Your task to perform on an android device: Open Wikipedia Image 0: 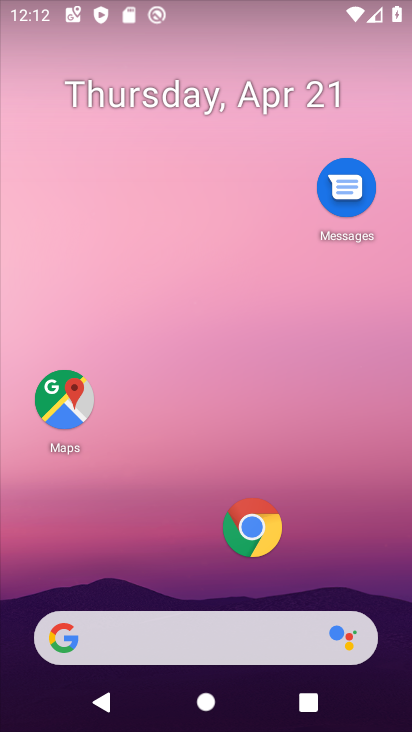
Step 0: click (262, 525)
Your task to perform on an android device: Open Wikipedia Image 1: 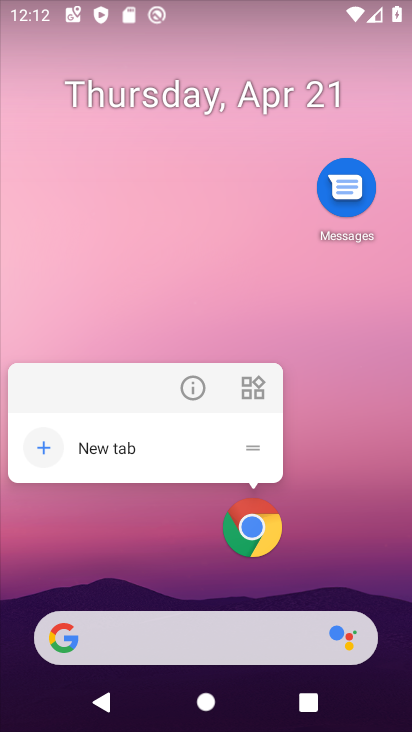
Step 1: click (271, 516)
Your task to perform on an android device: Open Wikipedia Image 2: 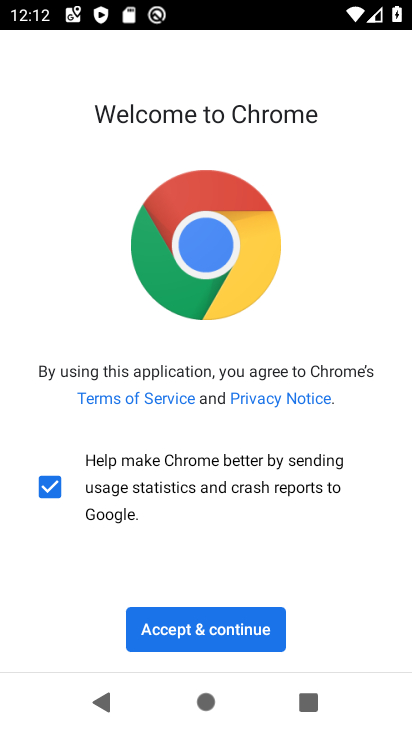
Step 2: click (249, 635)
Your task to perform on an android device: Open Wikipedia Image 3: 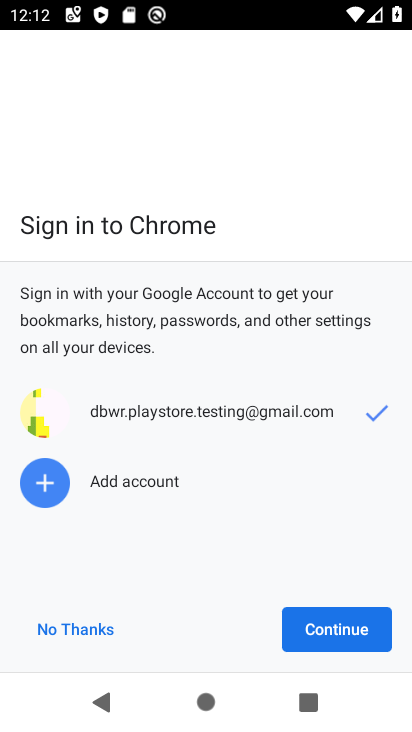
Step 3: click (283, 641)
Your task to perform on an android device: Open Wikipedia Image 4: 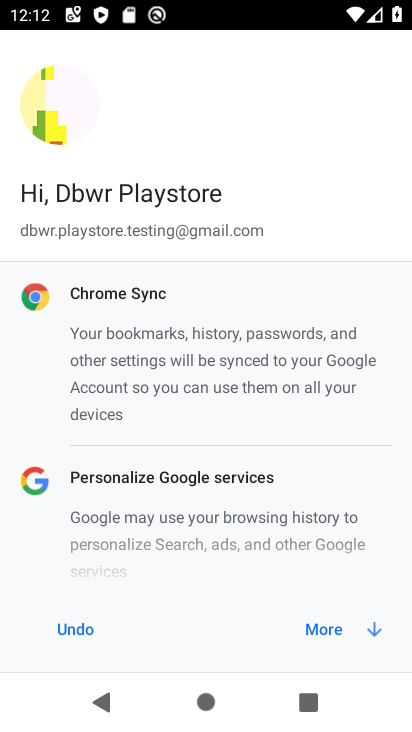
Step 4: click (308, 627)
Your task to perform on an android device: Open Wikipedia Image 5: 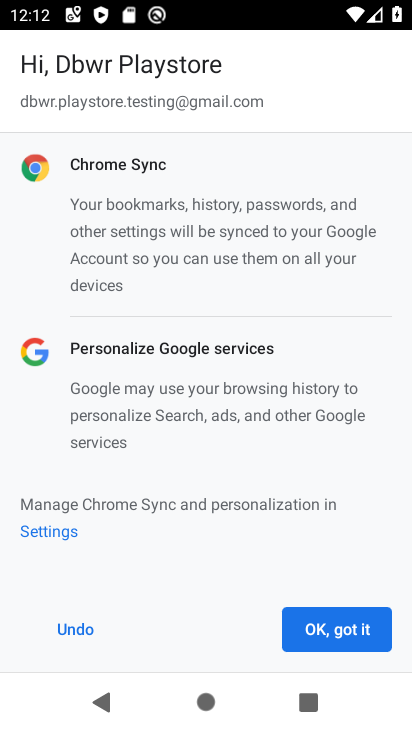
Step 5: click (308, 627)
Your task to perform on an android device: Open Wikipedia Image 6: 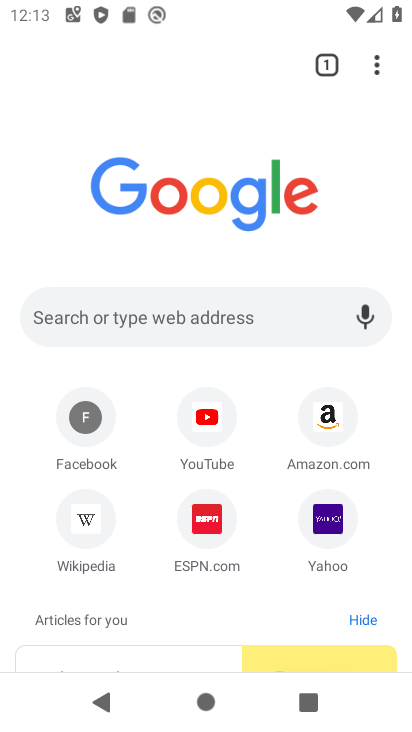
Step 6: click (79, 505)
Your task to perform on an android device: Open Wikipedia Image 7: 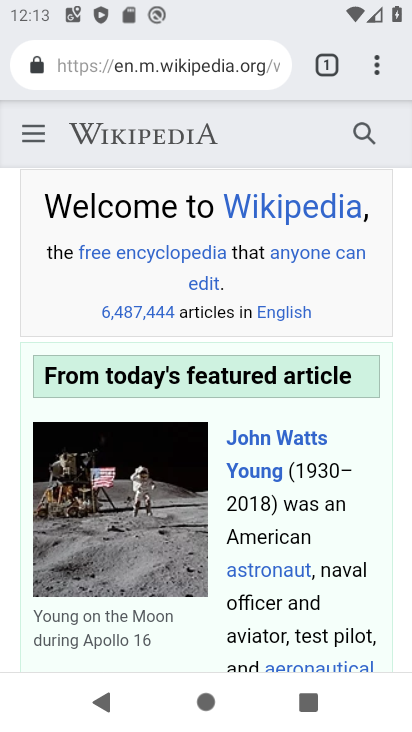
Step 7: task complete